Your task to perform on an android device: Go to CNN.com Image 0: 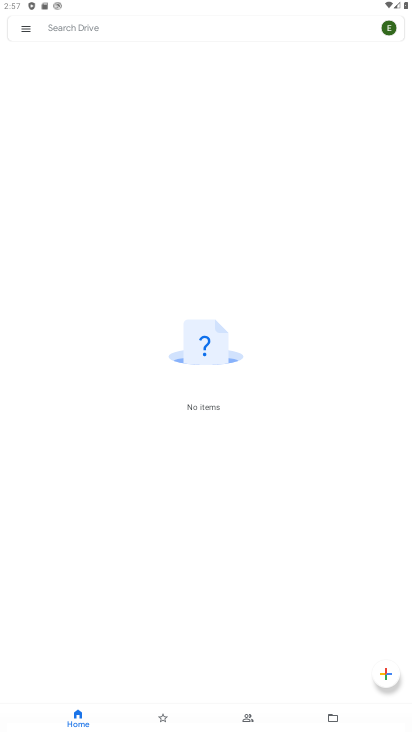
Step 0: press home button
Your task to perform on an android device: Go to CNN.com Image 1: 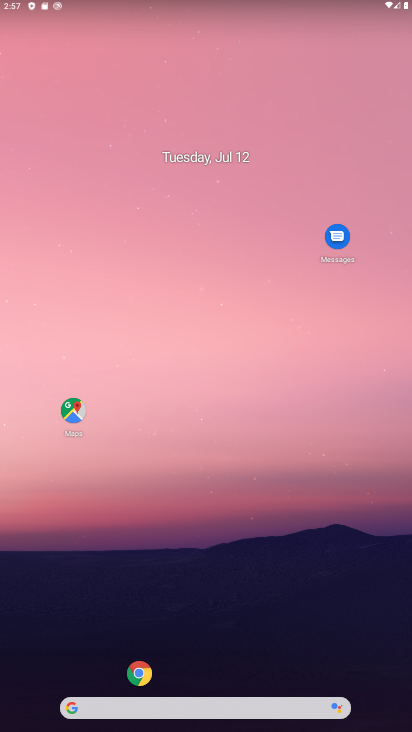
Step 1: click (120, 703)
Your task to perform on an android device: Go to CNN.com Image 2: 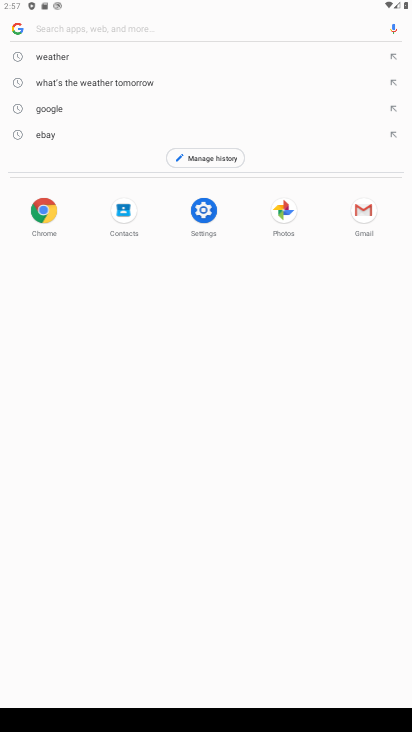
Step 2: type "CNN.com"
Your task to perform on an android device: Go to CNN.com Image 3: 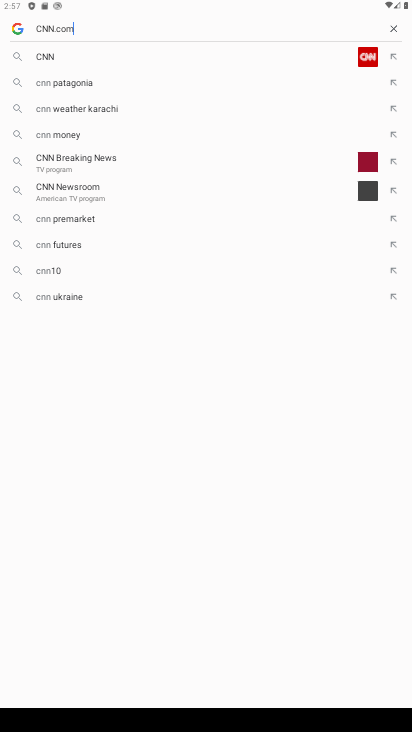
Step 3: type ""
Your task to perform on an android device: Go to CNN.com Image 4: 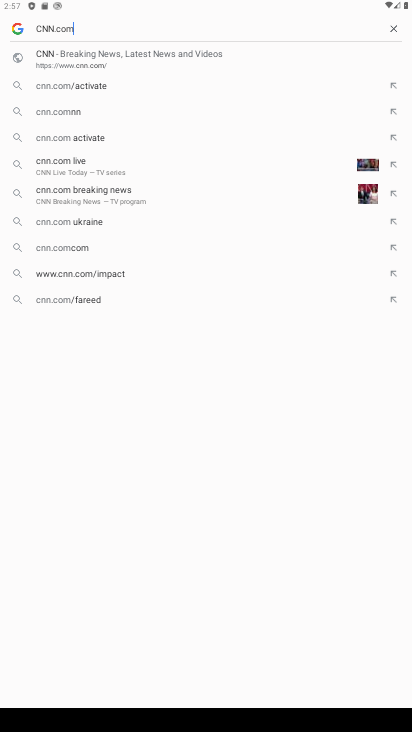
Step 4: task complete